Your task to perform on an android device: Go to location settings Image 0: 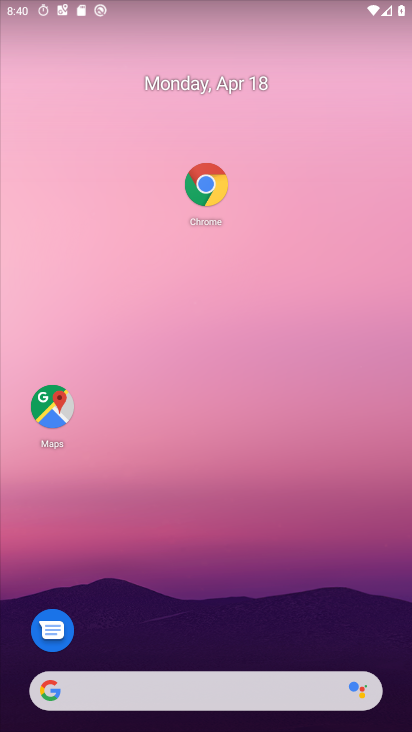
Step 0: click (209, 195)
Your task to perform on an android device: Go to location settings Image 1: 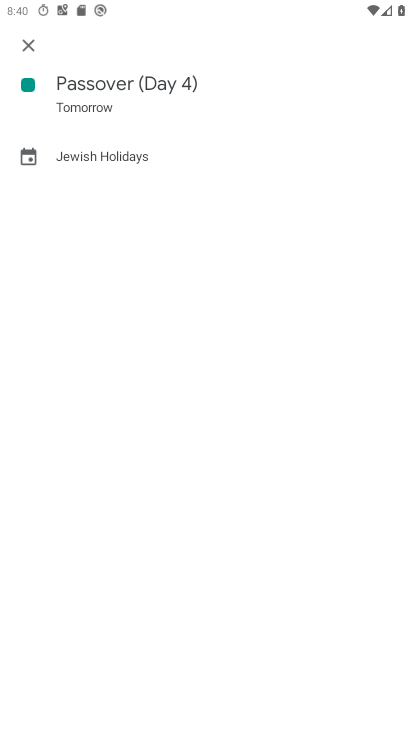
Step 1: press back button
Your task to perform on an android device: Go to location settings Image 2: 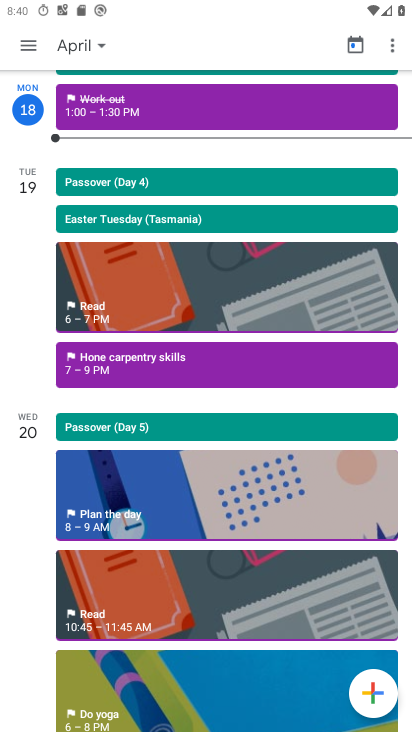
Step 2: press back button
Your task to perform on an android device: Go to location settings Image 3: 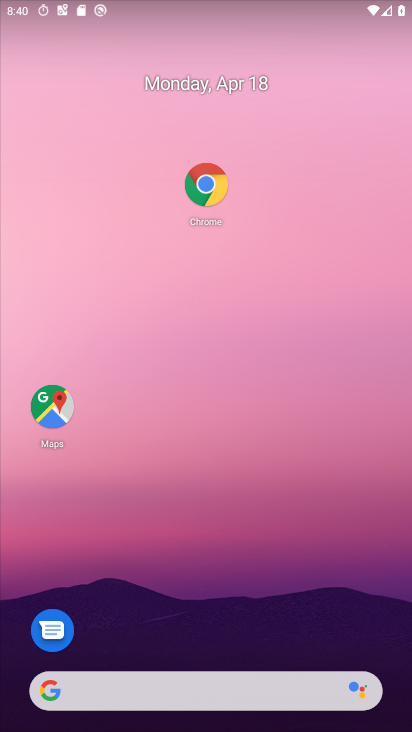
Step 3: drag from (228, 575) to (347, 71)
Your task to perform on an android device: Go to location settings Image 4: 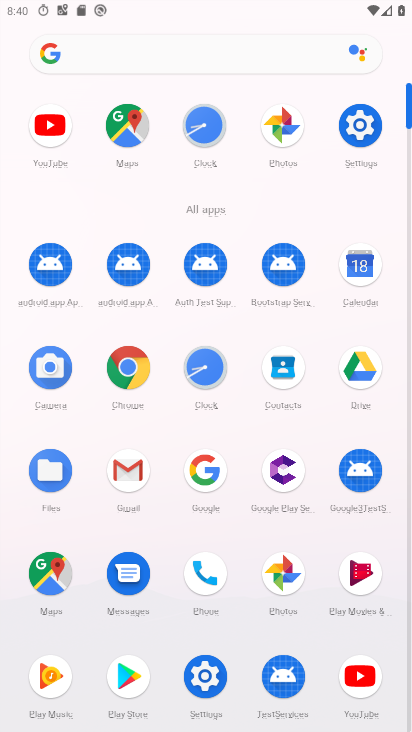
Step 4: click (203, 679)
Your task to perform on an android device: Go to location settings Image 5: 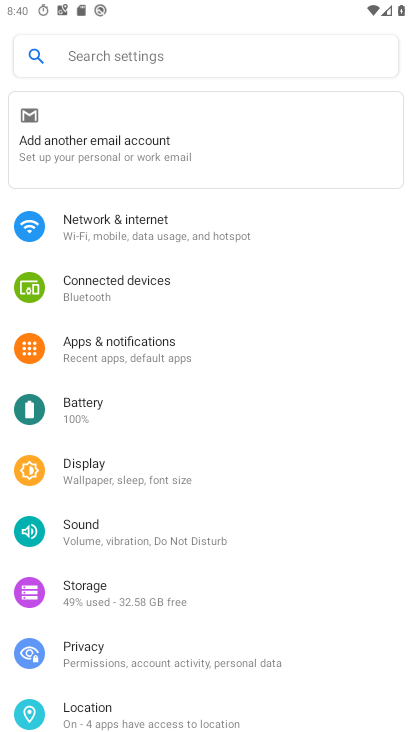
Step 5: drag from (173, 644) to (215, 457)
Your task to perform on an android device: Go to location settings Image 6: 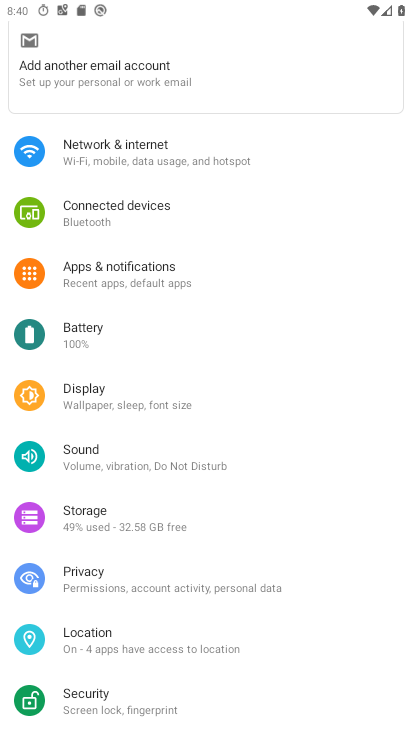
Step 6: click (99, 645)
Your task to perform on an android device: Go to location settings Image 7: 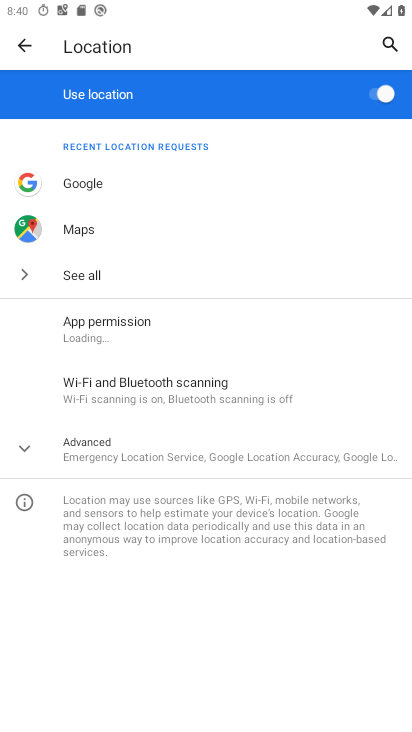
Step 7: task complete